Your task to perform on an android device: Open privacy settings Image 0: 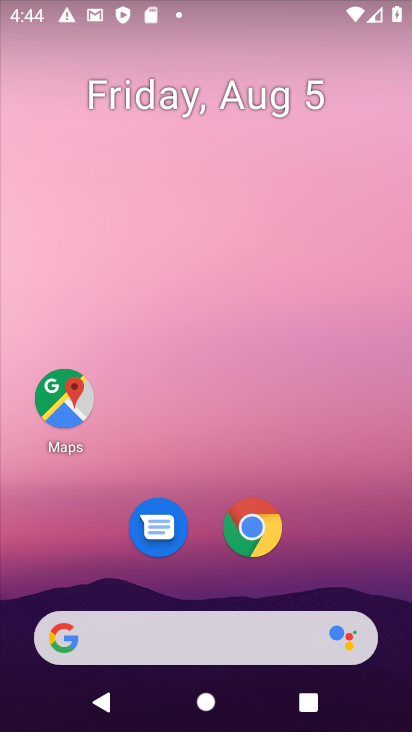
Step 0: drag from (232, 621) to (222, 216)
Your task to perform on an android device: Open privacy settings Image 1: 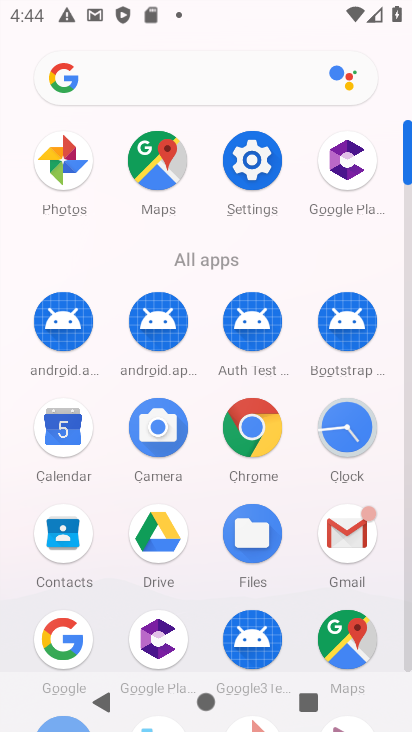
Step 1: drag from (213, 589) to (183, 123)
Your task to perform on an android device: Open privacy settings Image 2: 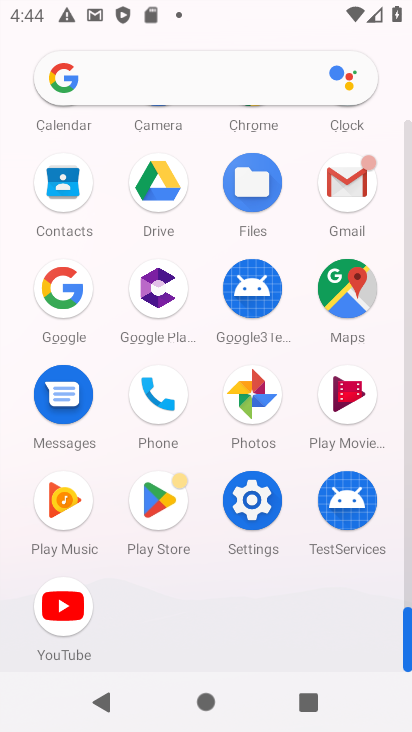
Step 2: click (251, 496)
Your task to perform on an android device: Open privacy settings Image 3: 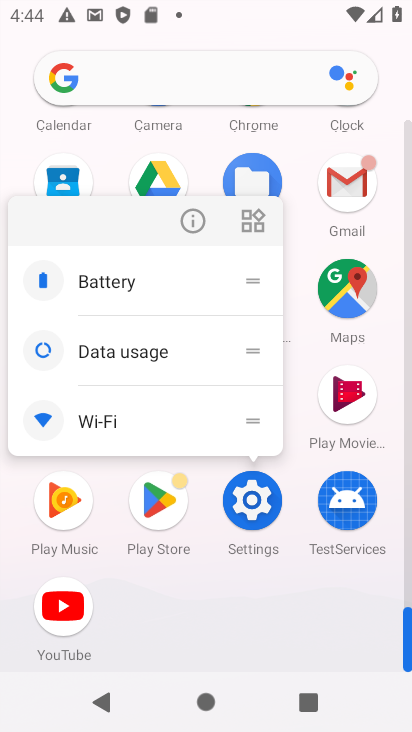
Step 3: click (193, 224)
Your task to perform on an android device: Open privacy settings Image 4: 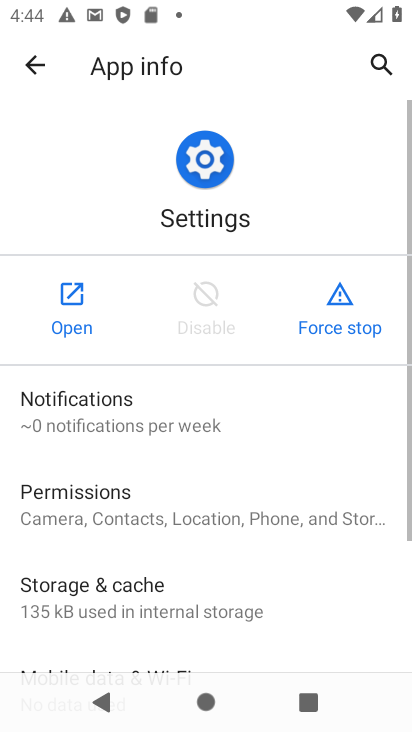
Step 4: click (57, 315)
Your task to perform on an android device: Open privacy settings Image 5: 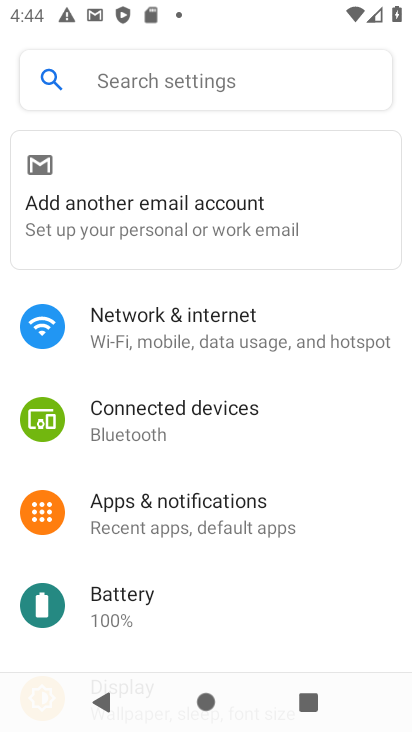
Step 5: drag from (178, 580) to (264, 91)
Your task to perform on an android device: Open privacy settings Image 6: 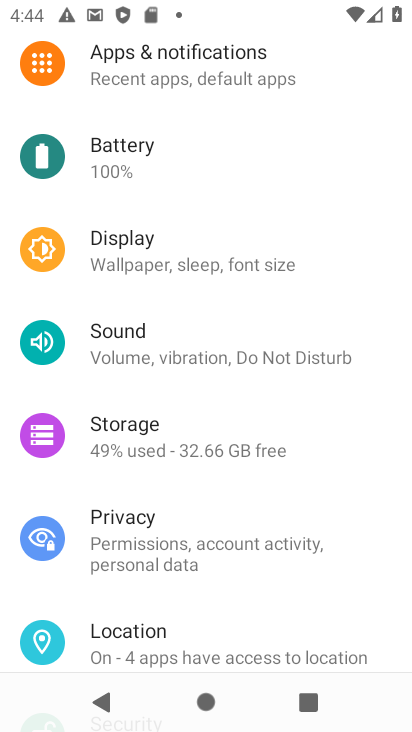
Step 6: click (150, 554)
Your task to perform on an android device: Open privacy settings Image 7: 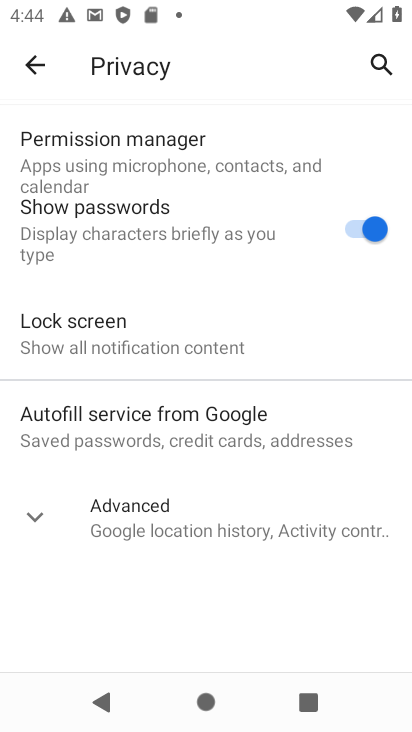
Step 7: task complete